Your task to perform on an android device: Search for "jbl charge 4" on target.com, select the first entry, add it to the cart, then select checkout. Image 0: 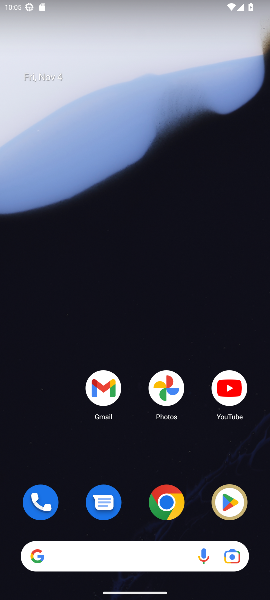
Step 0: click (175, 498)
Your task to perform on an android device: Search for "jbl charge 4" on target.com, select the first entry, add it to the cart, then select checkout. Image 1: 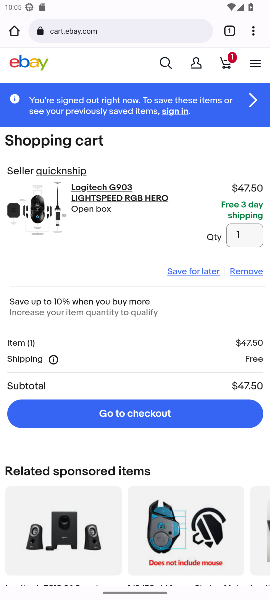
Step 1: click (134, 29)
Your task to perform on an android device: Search for "jbl charge 4" on target.com, select the first entry, add it to the cart, then select checkout. Image 2: 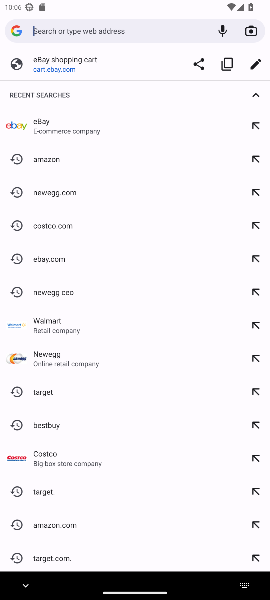
Step 2: type "target"
Your task to perform on an android device: Search for "jbl charge 4" on target.com, select the first entry, add it to the cart, then select checkout. Image 3: 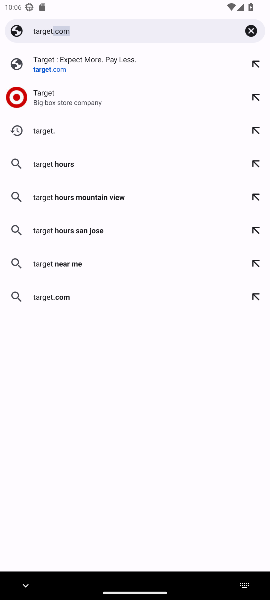
Step 3: click (123, 34)
Your task to perform on an android device: Search for "jbl charge 4" on target.com, select the first entry, add it to the cart, then select checkout. Image 4: 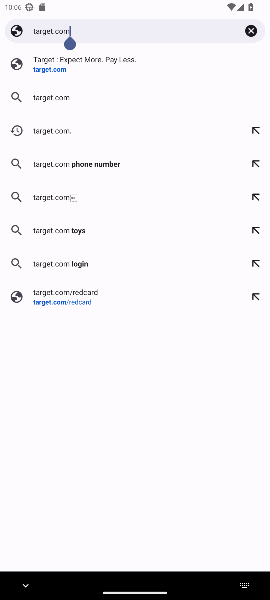
Step 4: click (61, 92)
Your task to perform on an android device: Search for "jbl charge 4" on target.com, select the first entry, add it to the cart, then select checkout. Image 5: 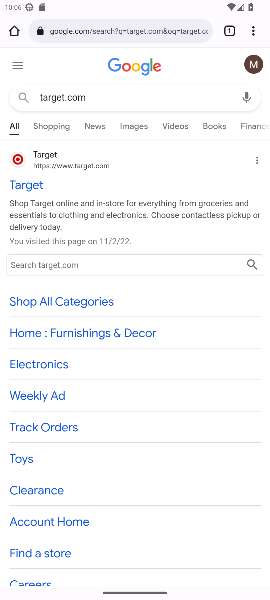
Step 5: click (71, 165)
Your task to perform on an android device: Search for "jbl charge 4" on target.com, select the first entry, add it to the cart, then select checkout. Image 6: 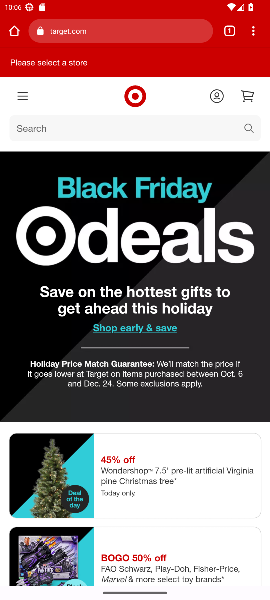
Step 6: click (248, 126)
Your task to perform on an android device: Search for "jbl charge 4" on target.com, select the first entry, add it to the cart, then select checkout. Image 7: 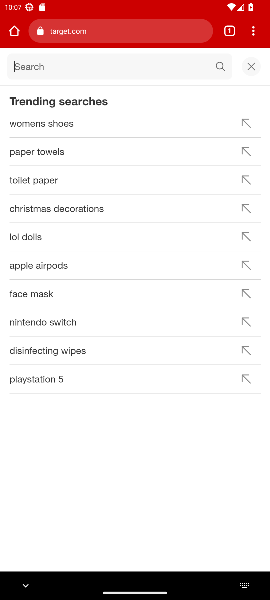
Step 7: type "jbl charge 4"
Your task to perform on an android device: Search for "jbl charge 4" on target.com, select the first entry, add it to the cart, then select checkout. Image 8: 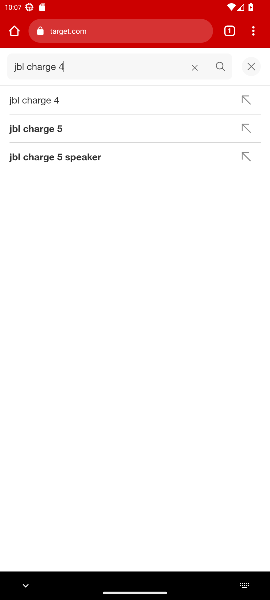
Step 8: click (29, 102)
Your task to perform on an android device: Search for "jbl charge 4" on target.com, select the first entry, add it to the cart, then select checkout. Image 9: 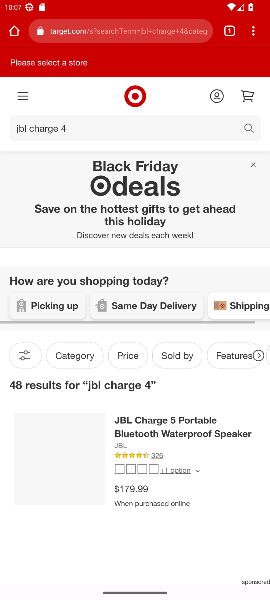
Step 9: task complete